Your task to perform on an android device: turn notification dots on Image 0: 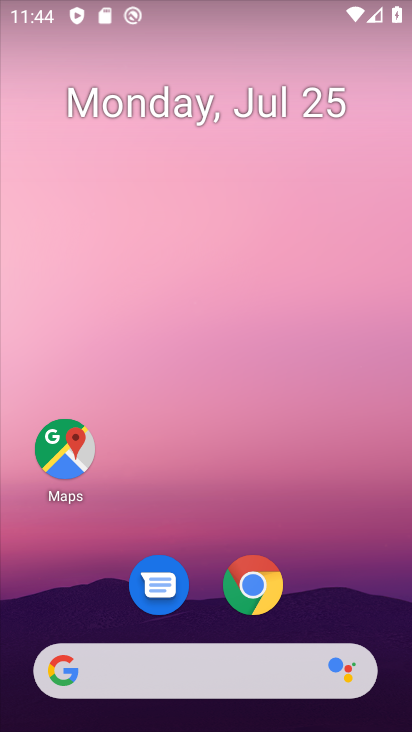
Step 0: drag from (315, 590) to (330, 13)
Your task to perform on an android device: turn notification dots on Image 1: 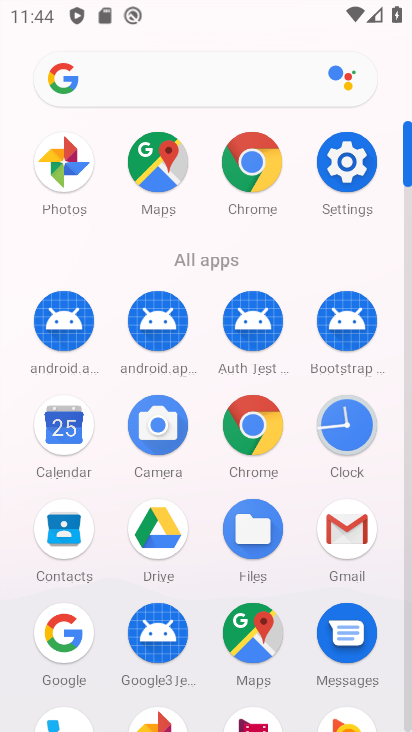
Step 1: click (351, 168)
Your task to perform on an android device: turn notification dots on Image 2: 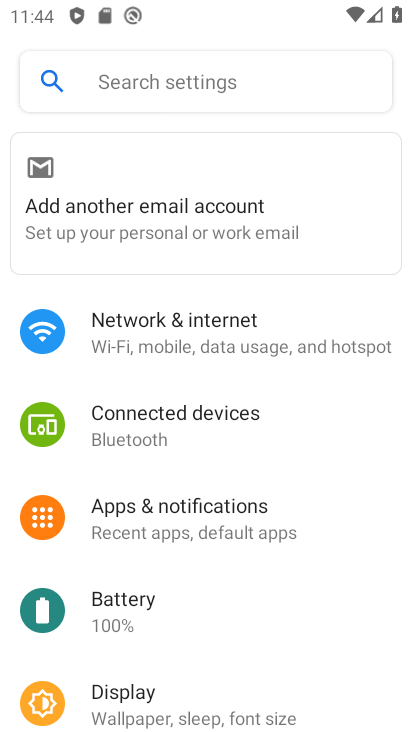
Step 2: click (238, 514)
Your task to perform on an android device: turn notification dots on Image 3: 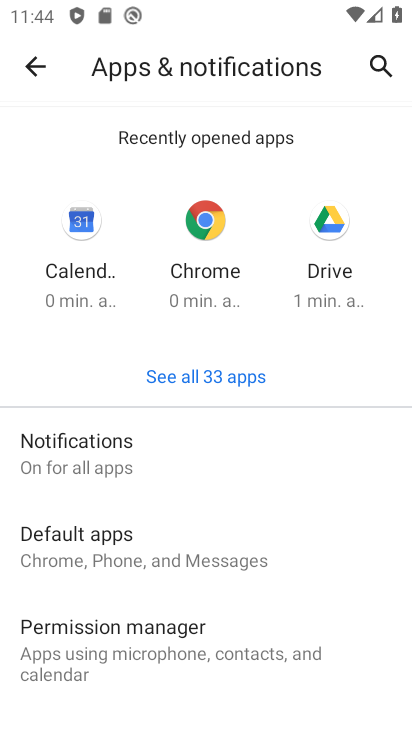
Step 3: click (117, 452)
Your task to perform on an android device: turn notification dots on Image 4: 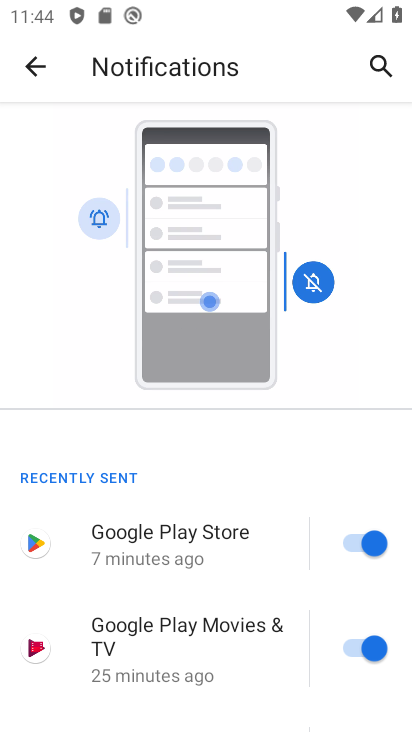
Step 4: drag from (267, 592) to (302, 117)
Your task to perform on an android device: turn notification dots on Image 5: 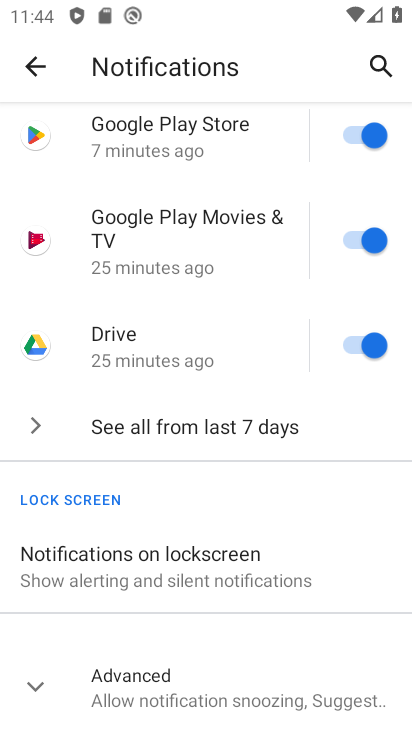
Step 5: click (36, 679)
Your task to perform on an android device: turn notification dots on Image 6: 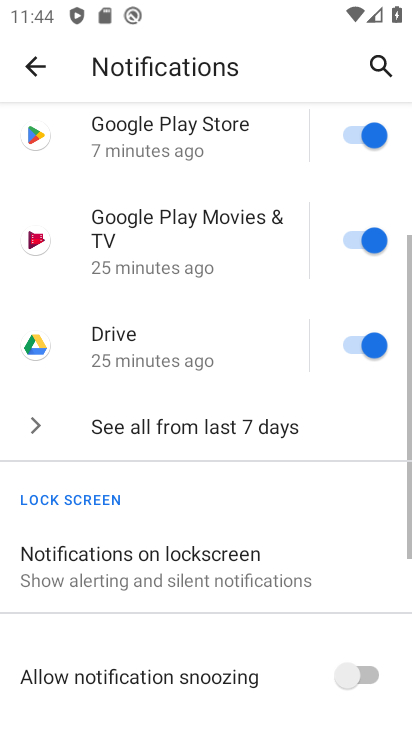
Step 6: task complete